Your task to perform on an android device: see creations saved in the google photos Image 0: 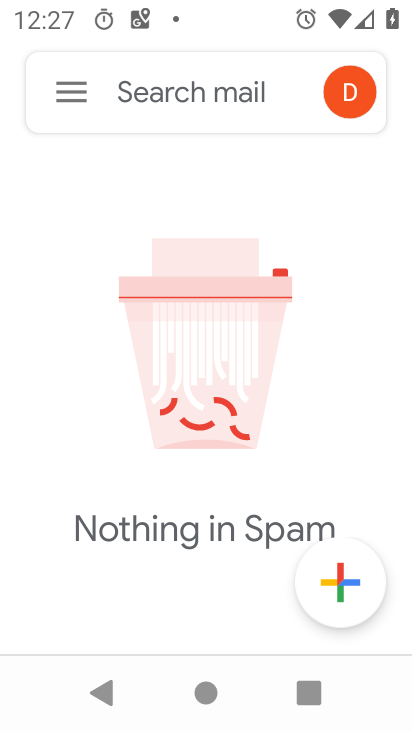
Step 0: press home button
Your task to perform on an android device: see creations saved in the google photos Image 1: 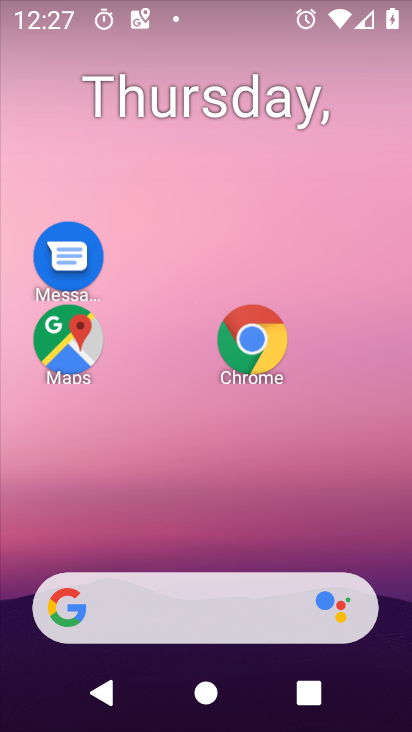
Step 1: drag from (186, 533) to (226, 87)
Your task to perform on an android device: see creations saved in the google photos Image 2: 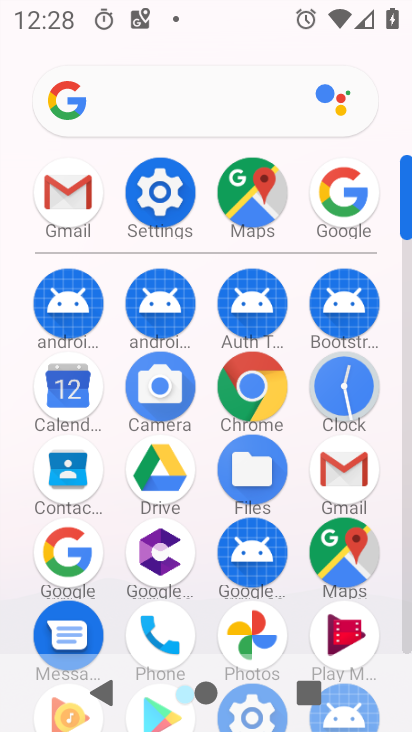
Step 2: click (251, 631)
Your task to perform on an android device: see creations saved in the google photos Image 3: 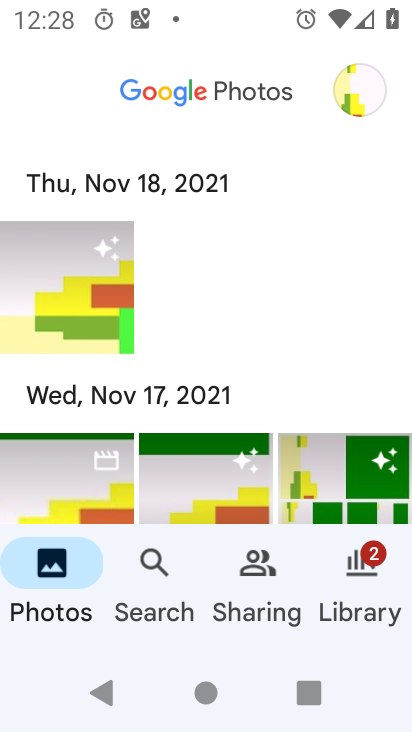
Step 3: drag from (240, 419) to (259, 308)
Your task to perform on an android device: see creations saved in the google photos Image 4: 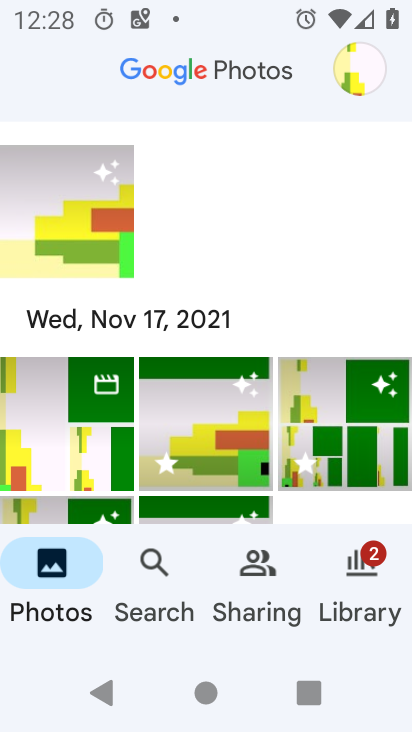
Step 4: click (157, 608)
Your task to perform on an android device: see creations saved in the google photos Image 5: 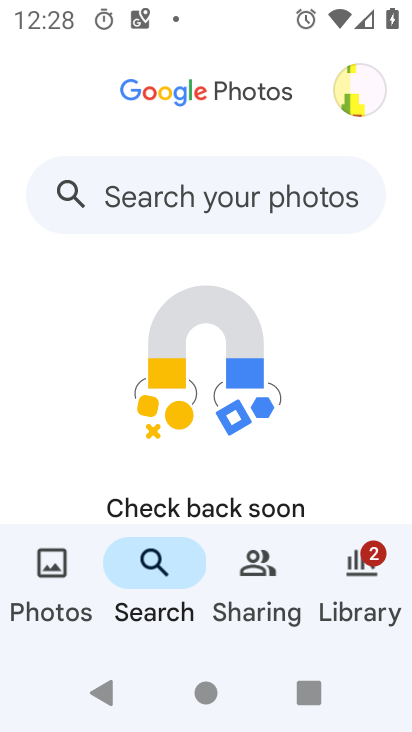
Step 5: click (186, 207)
Your task to perform on an android device: see creations saved in the google photos Image 6: 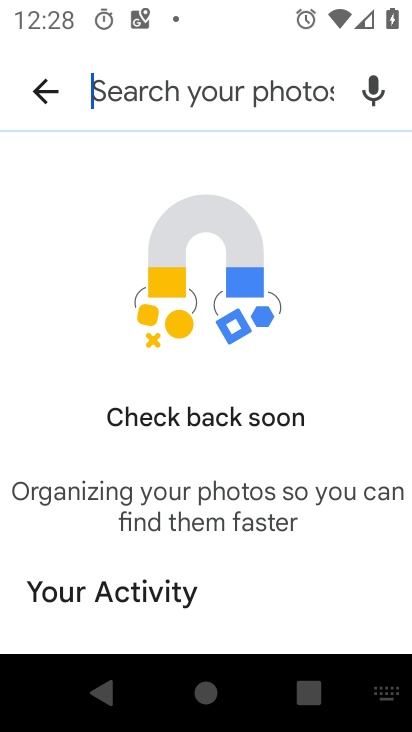
Step 6: drag from (200, 494) to (245, 185)
Your task to perform on an android device: see creations saved in the google photos Image 7: 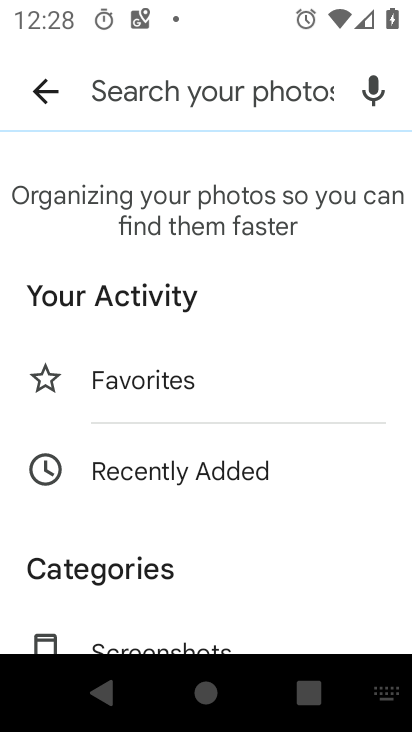
Step 7: drag from (248, 598) to (272, 205)
Your task to perform on an android device: see creations saved in the google photos Image 8: 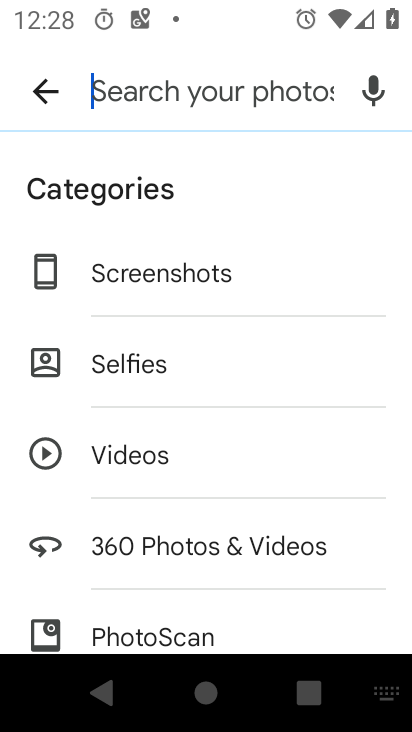
Step 8: drag from (222, 537) to (225, 171)
Your task to perform on an android device: see creations saved in the google photos Image 9: 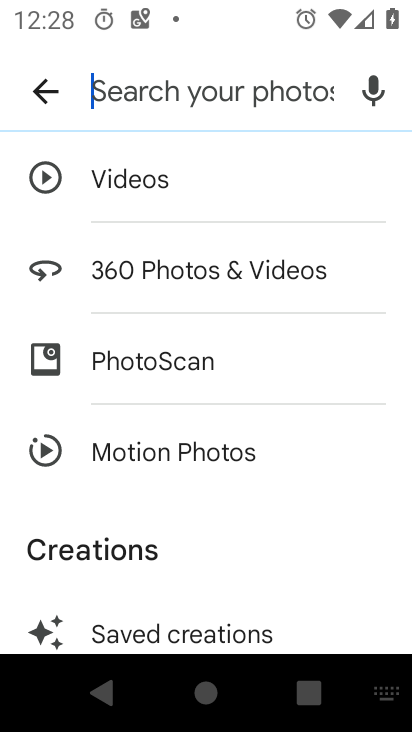
Step 9: drag from (182, 584) to (174, 440)
Your task to perform on an android device: see creations saved in the google photos Image 10: 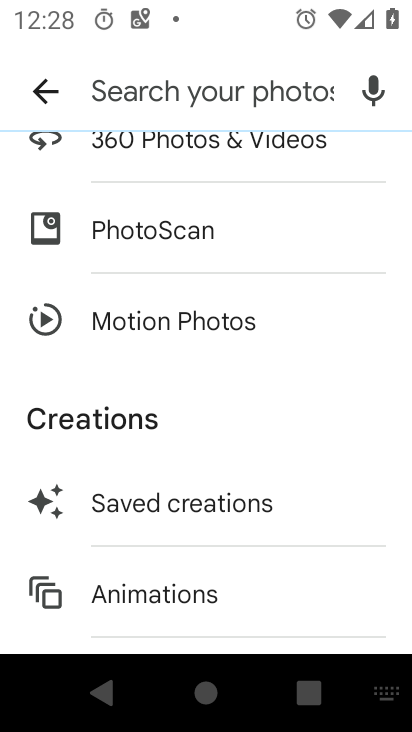
Step 10: click (152, 490)
Your task to perform on an android device: see creations saved in the google photos Image 11: 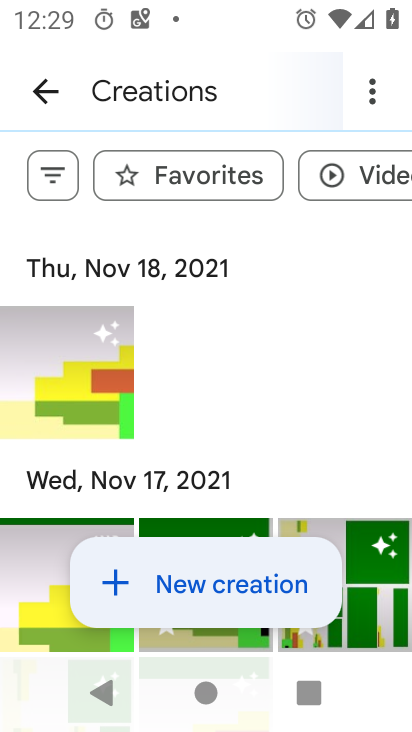
Step 11: task complete